Your task to perform on an android device: Open Chrome and go to settings Image 0: 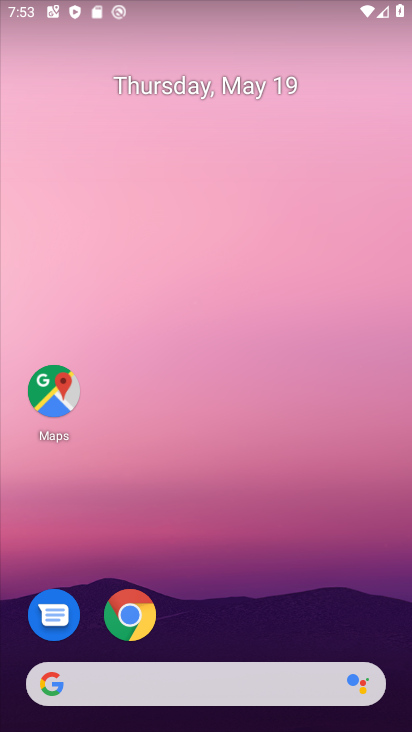
Step 0: drag from (299, 665) to (315, 36)
Your task to perform on an android device: Open Chrome and go to settings Image 1: 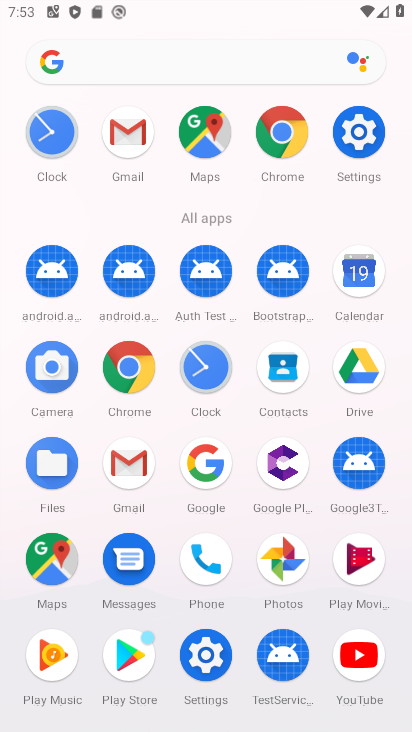
Step 1: click (360, 143)
Your task to perform on an android device: Open Chrome and go to settings Image 2: 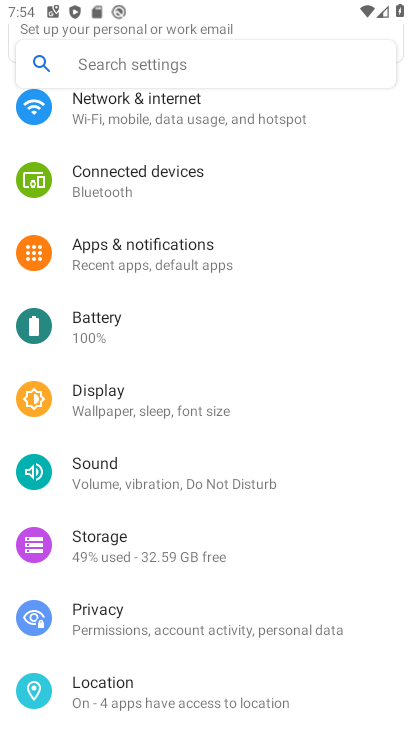
Step 2: drag from (224, 291) to (193, 579)
Your task to perform on an android device: Open Chrome and go to settings Image 3: 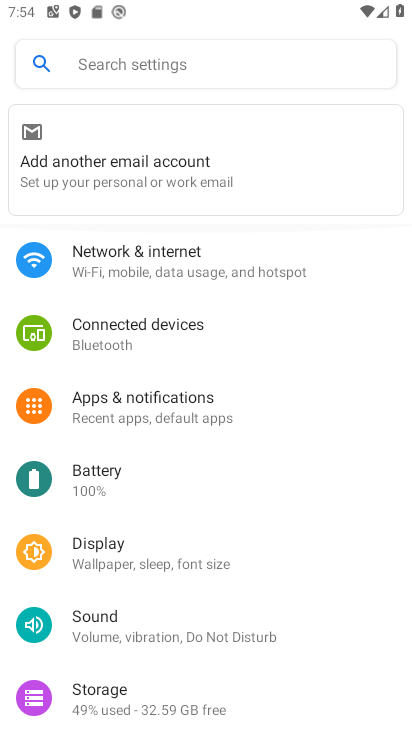
Step 3: drag from (186, 546) to (227, 121)
Your task to perform on an android device: Open Chrome and go to settings Image 4: 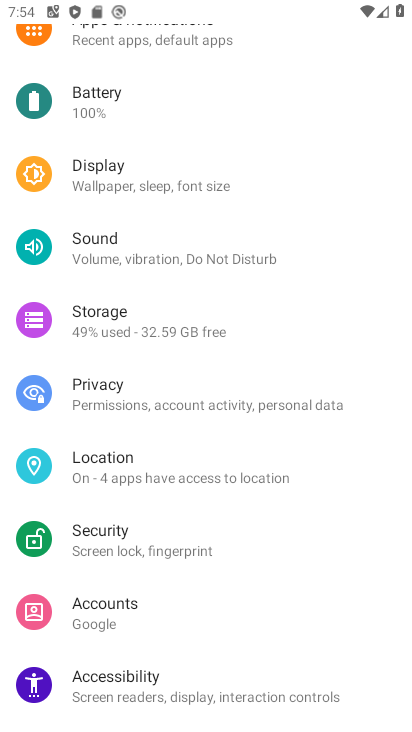
Step 4: press home button
Your task to perform on an android device: Open Chrome and go to settings Image 5: 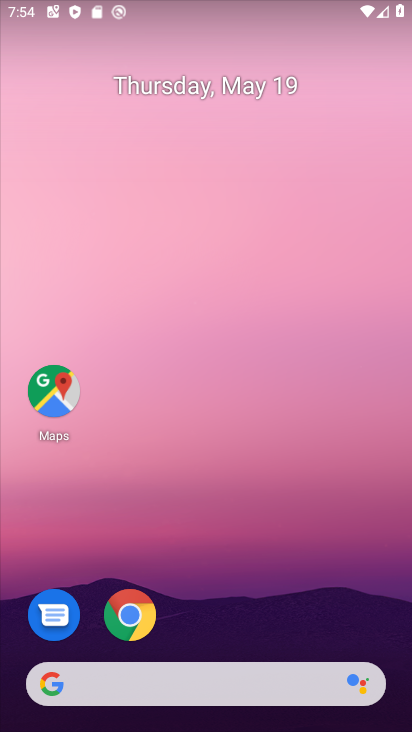
Step 5: click (152, 609)
Your task to perform on an android device: Open Chrome and go to settings Image 6: 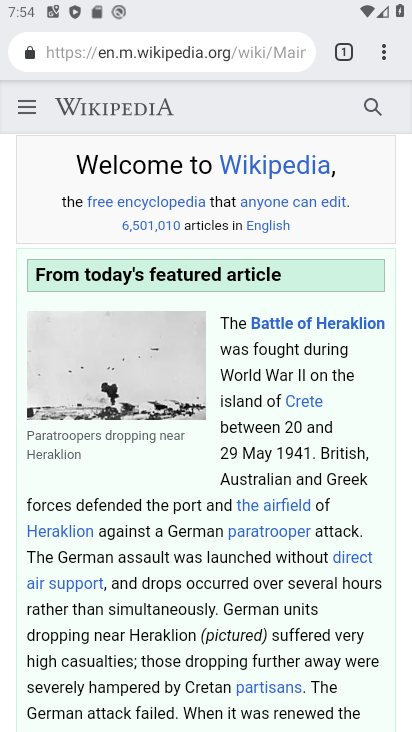
Step 6: click (388, 58)
Your task to perform on an android device: Open Chrome and go to settings Image 7: 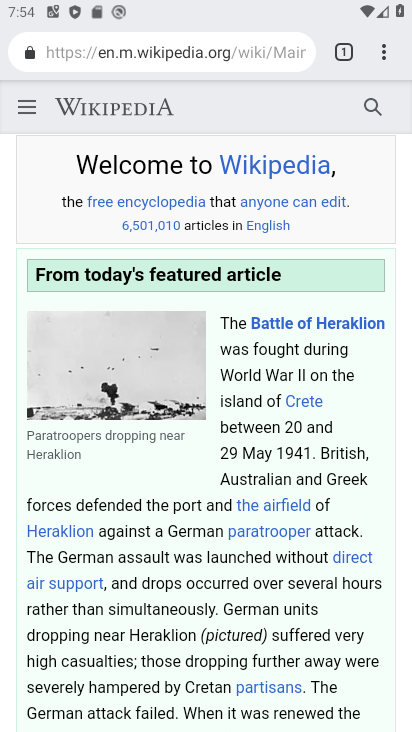
Step 7: click (379, 52)
Your task to perform on an android device: Open Chrome and go to settings Image 8: 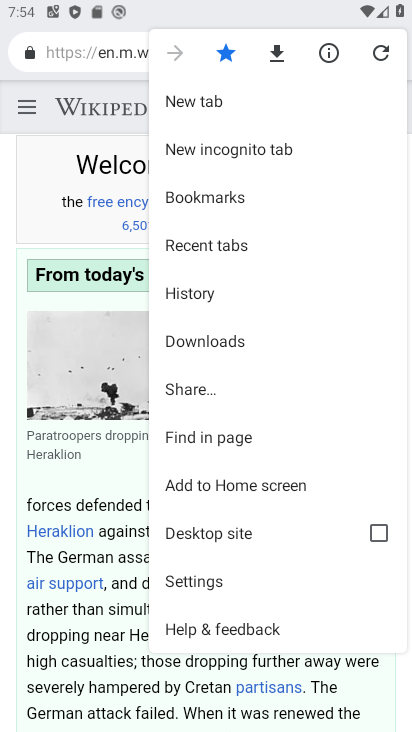
Step 8: click (219, 581)
Your task to perform on an android device: Open Chrome and go to settings Image 9: 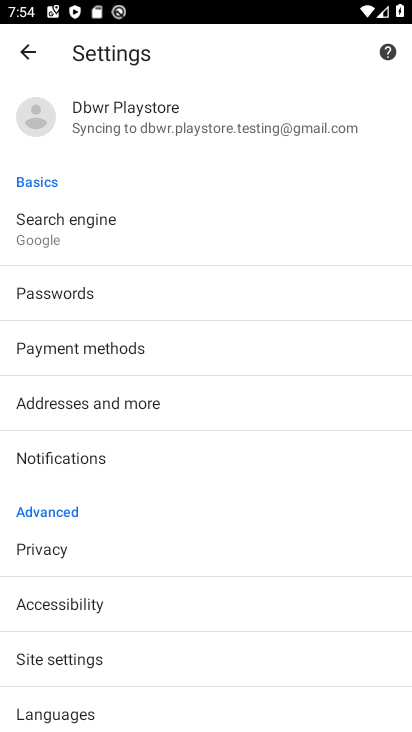
Step 9: task complete